Your task to perform on an android device: turn off picture-in-picture Image 0: 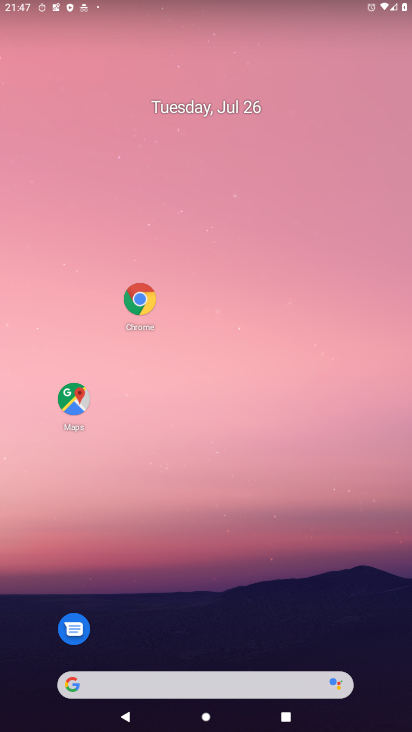
Step 0: drag from (265, 658) to (232, 174)
Your task to perform on an android device: turn off picture-in-picture Image 1: 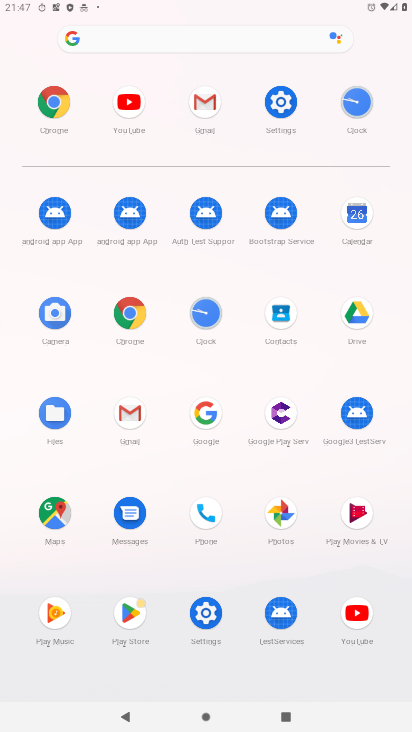
Step 1: click (131, 311)
Your task to perform on an android device: turn off picture-in-picture Image 2: 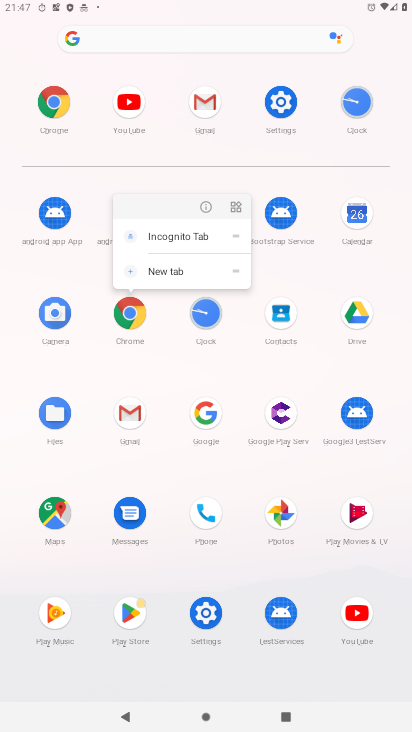
Step 2: click (198, 212)
Your task to perform on an android device: turn off picture-in-picture Image 3: 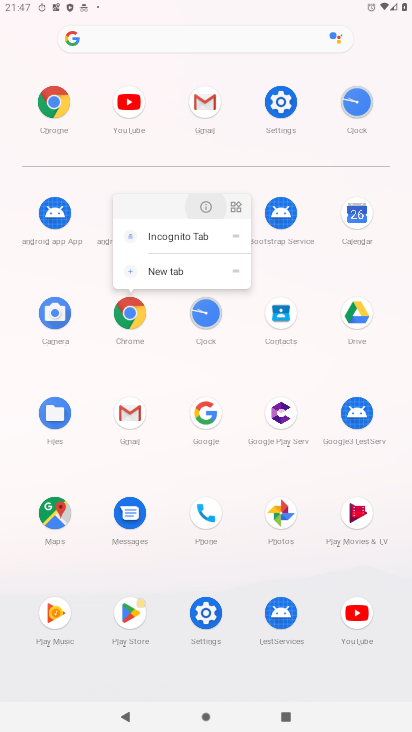
Step 3: click (199, 211)
Your task to perform on an android device: turn off picture-in-picture Image 4: 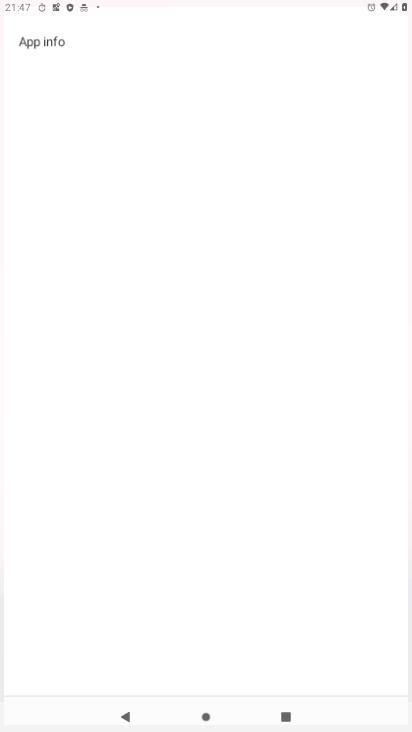
Step 4: click (200, 211)
Your task to perform on an android device: turn off picture-in-picture Image 5: 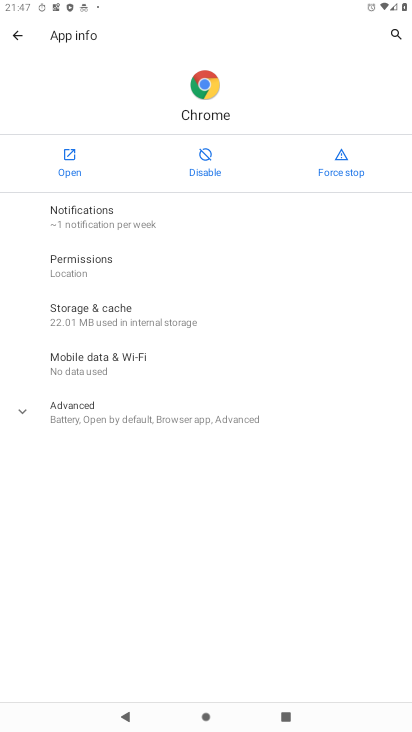
Step 5: click (65, 403)
Your task to perform on an android device: turn off picture-in-picture Image 6: 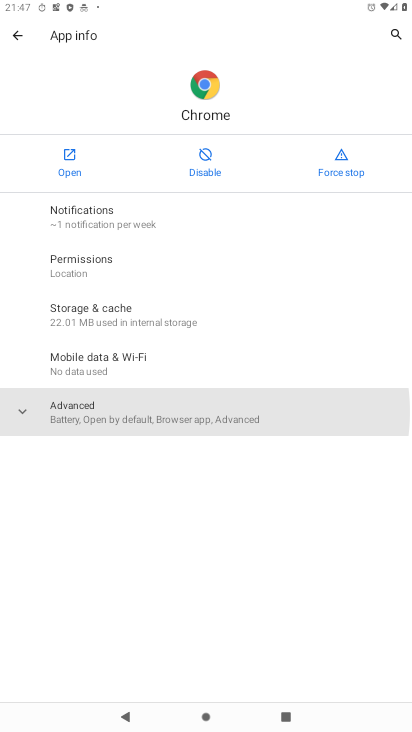
Step 6: click (73, 405)
Your task to perform on an android device: turn off picture-in-picture Image 7: 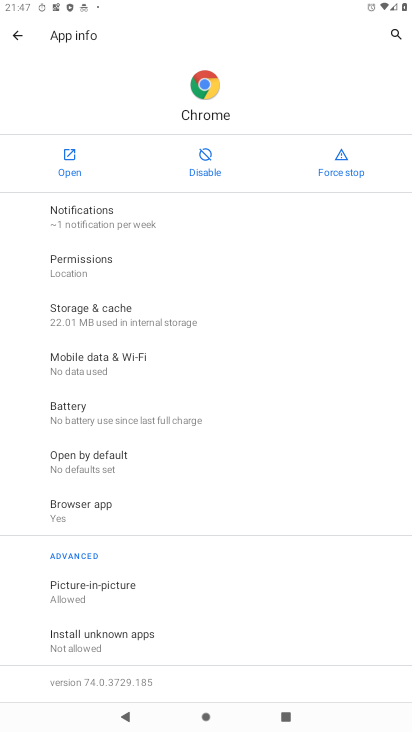
Step 7: click (79, 588)
Your task to perform on an android device: turn off picture-in-picture Image 8: 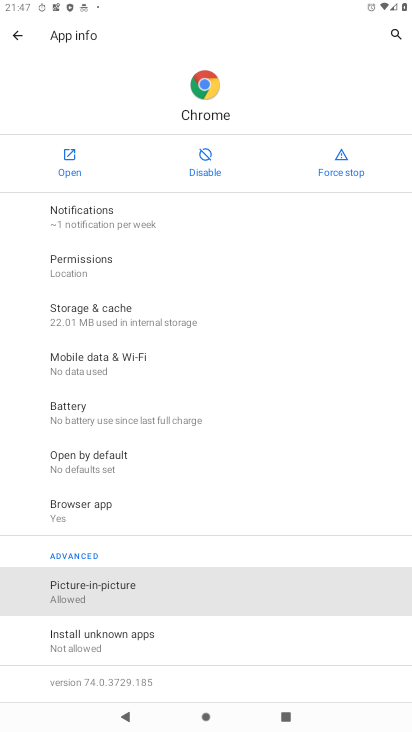
Step 8: click (78, 589)
Your task to perform on an android device: turn off picture-in-picture Image 9: 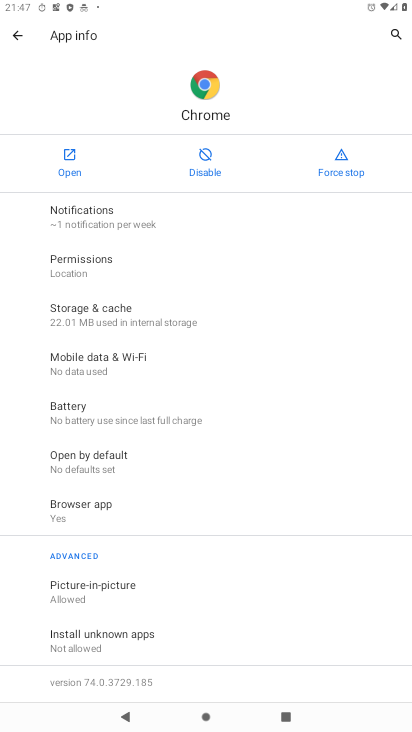
Step 9: click (78, 589)
Your task to perform on an android device: turn off picture-in-picture Image 10: 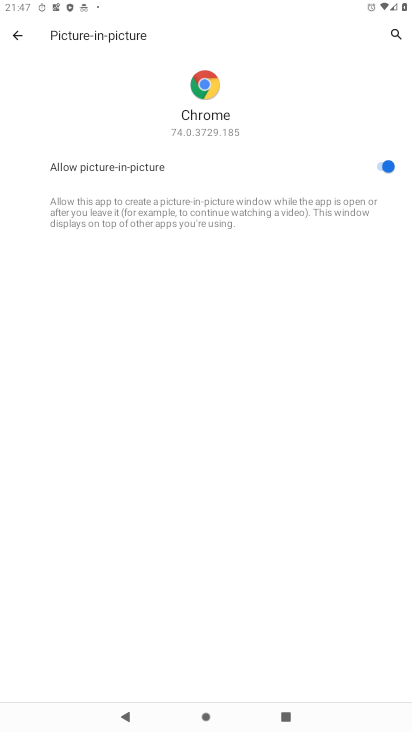
Step 10: click (385, 165)
Your task to perform on an android device: turn off picture-in-picture Image 11: 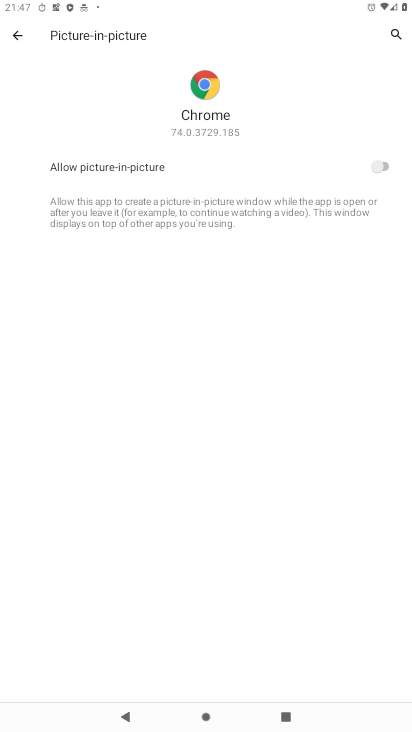
Step 11: task complete